Your task to perform on an android device: Open Google Maps Image 0: 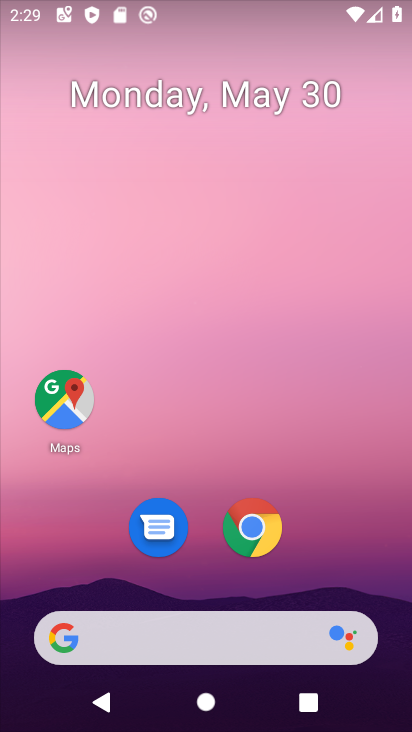
Step 0: drag from (211, 482) to (194, 84)
Your task to perform on an android device: Open Google Maps Image 1: 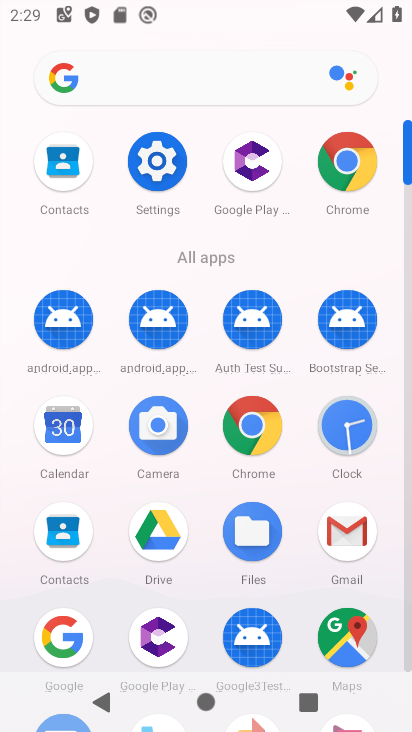
Step 1: drag from (195, 297) to (212, 11)
Your task to perform on an android device: Open Google Maps Image 2: 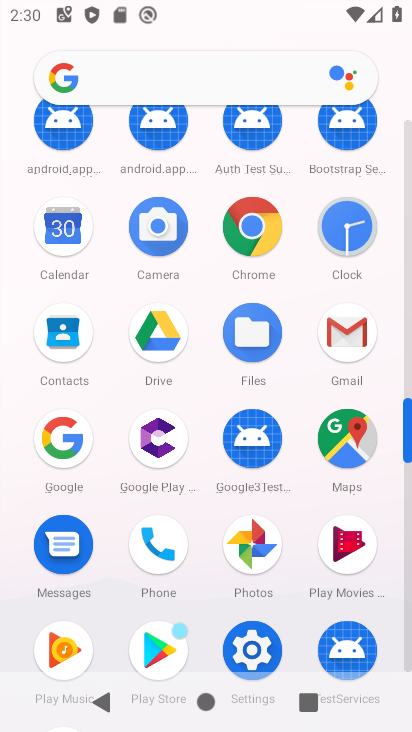
Step 2: click (353, 438)
Your task to perform on an android device: Open Google Maps Image 3: 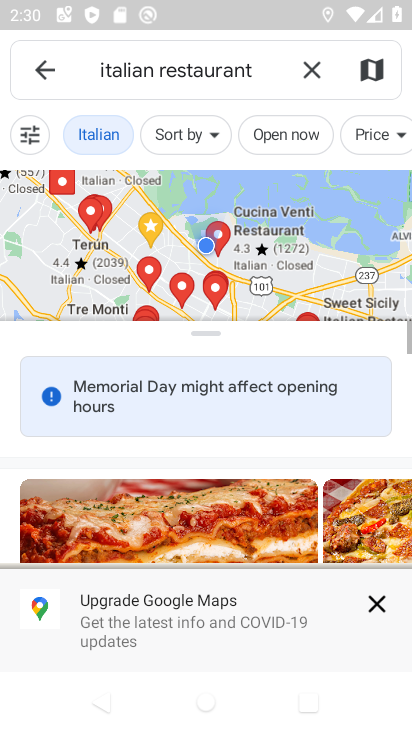
Step 3: click (49, 65)
Your task to perform on an android device: Open Google Maps Image 4: 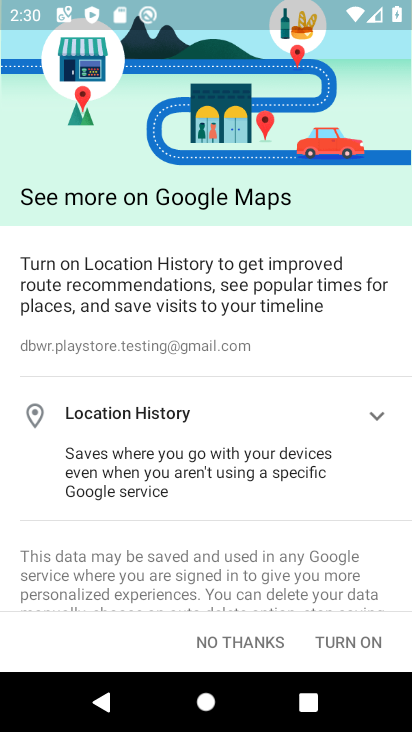
Step 4: click (234, 634)
Your task to perform on an android device: Open Google Maps Image 5: 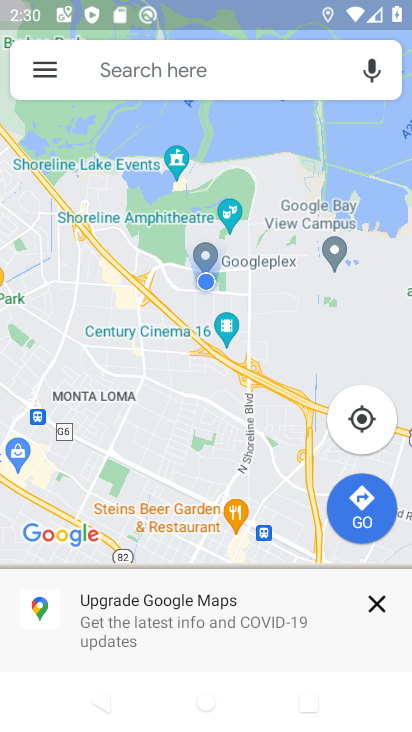
Step 5: task complete